Your task to perform on an android device: turn on wifi Image 0: 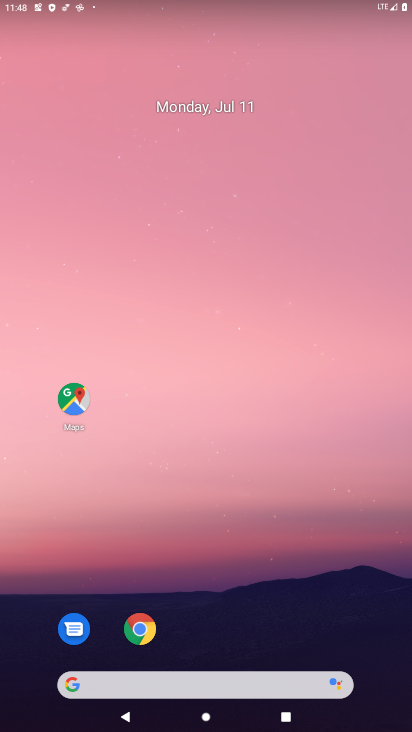
Step 0: drag from (259, 662) to (252, 131)
Your task to perform on an android device: turn on wifi Image 1: 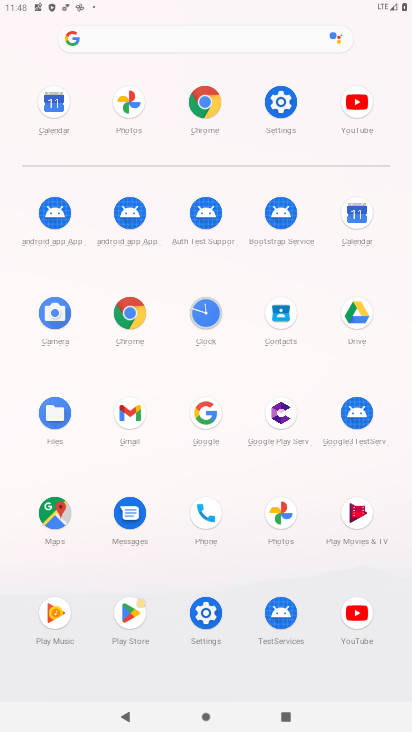
Step 1: click (280, 132)
Your task to perform on an android device: turn on wifi Image 2: 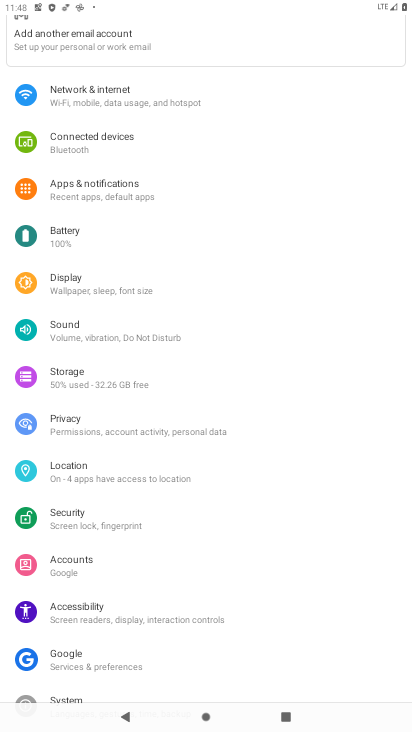
Step 2: click (217, 105)
Your task to perform on an android device: turn on wifi Image 3: 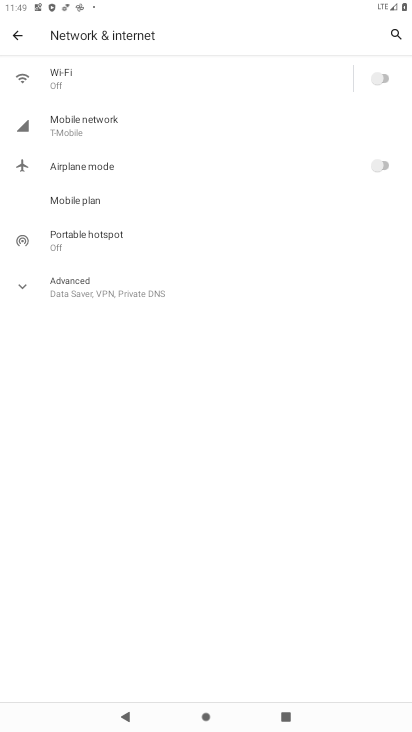
Step 3: click (395, 79)
Your task to perform on an android device: turn on wifi Image 4: 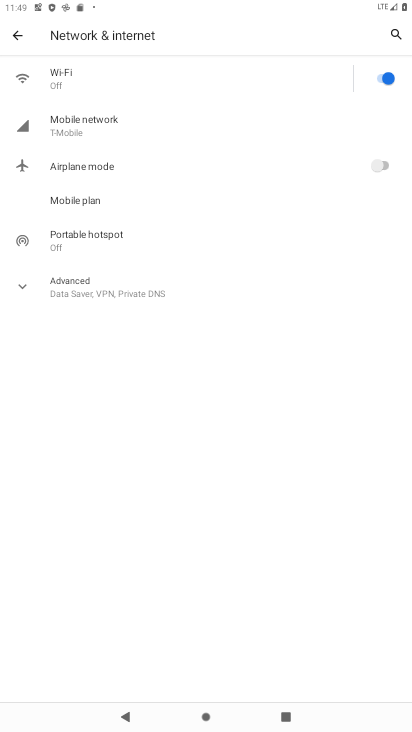
Step 4: task complete